Your task to perform on an android device: uninstall "Reddit" Image 0: 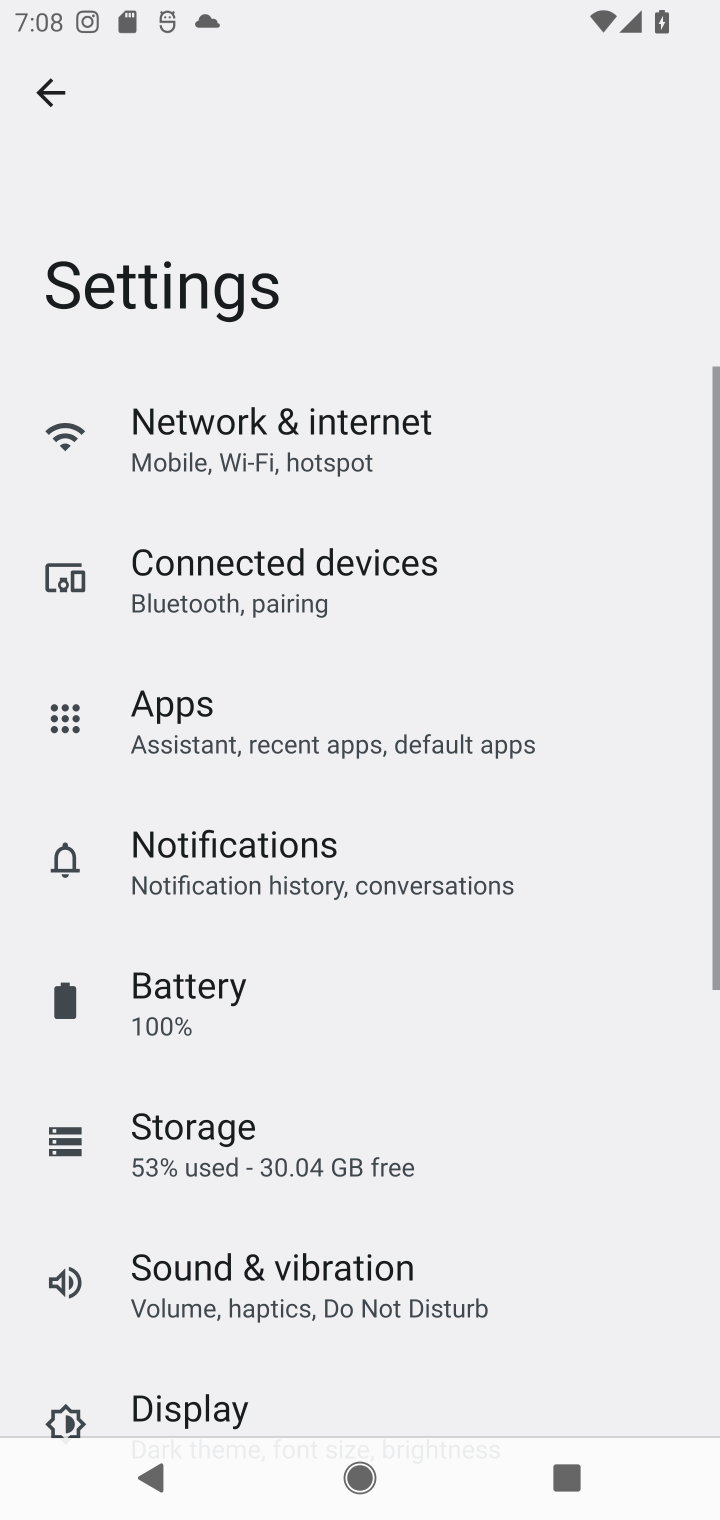
Step 0: press home button
Your task to perform on an android device: uninstall "Reddit" Image 1: 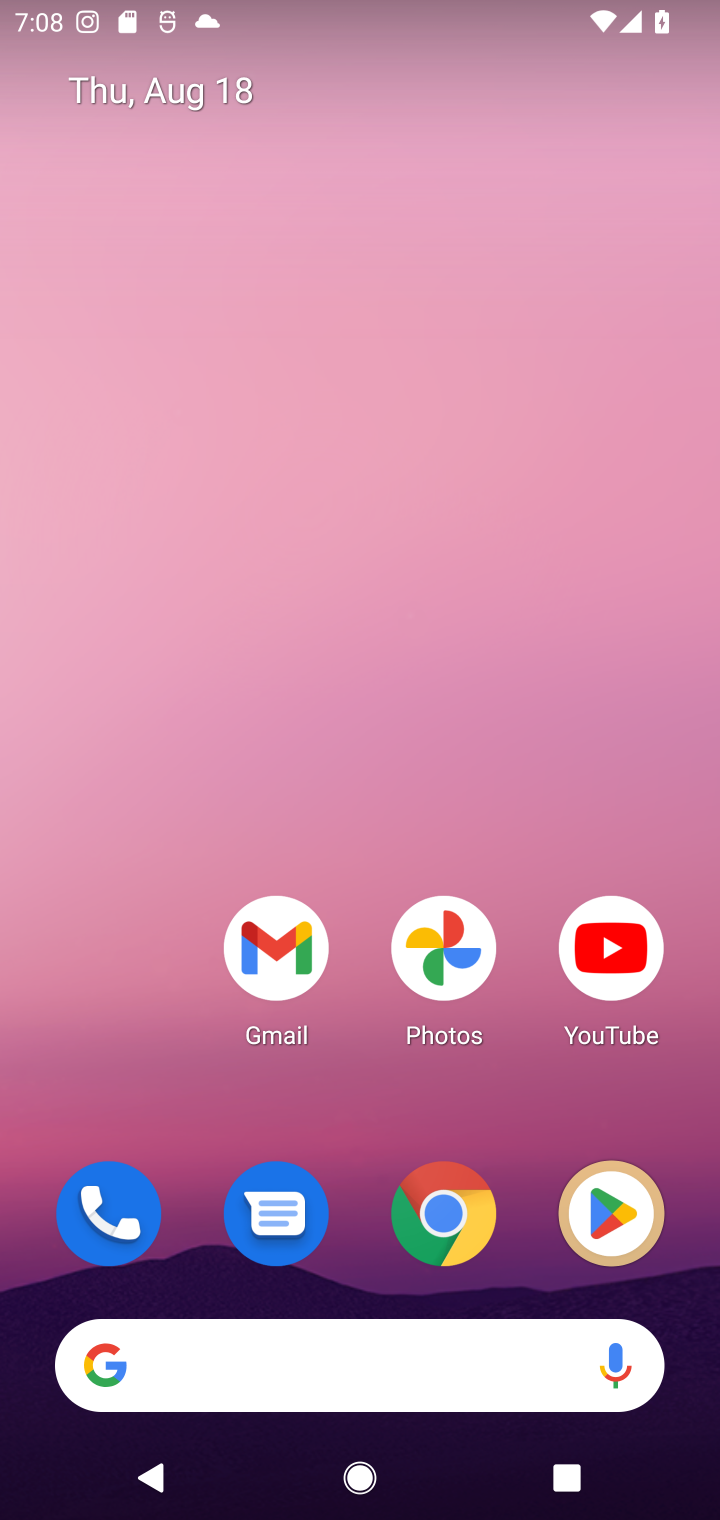
Step 1: click (608, 1204)
Your task to perform on an android device: uninstall "Reddit" Image 2: 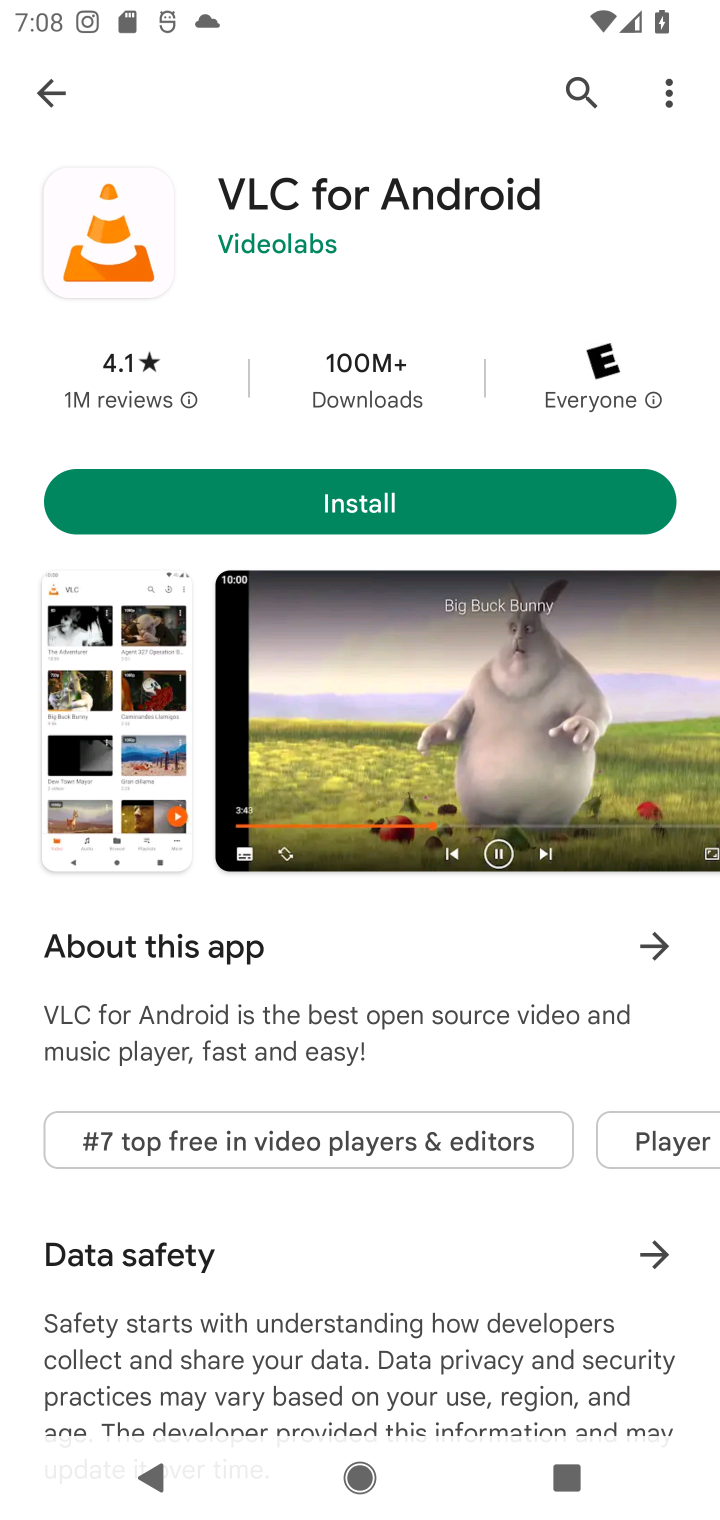
Step 2: click (40, 88)
Your task to perform on an android device: uninstall "Reddit" Image 3: 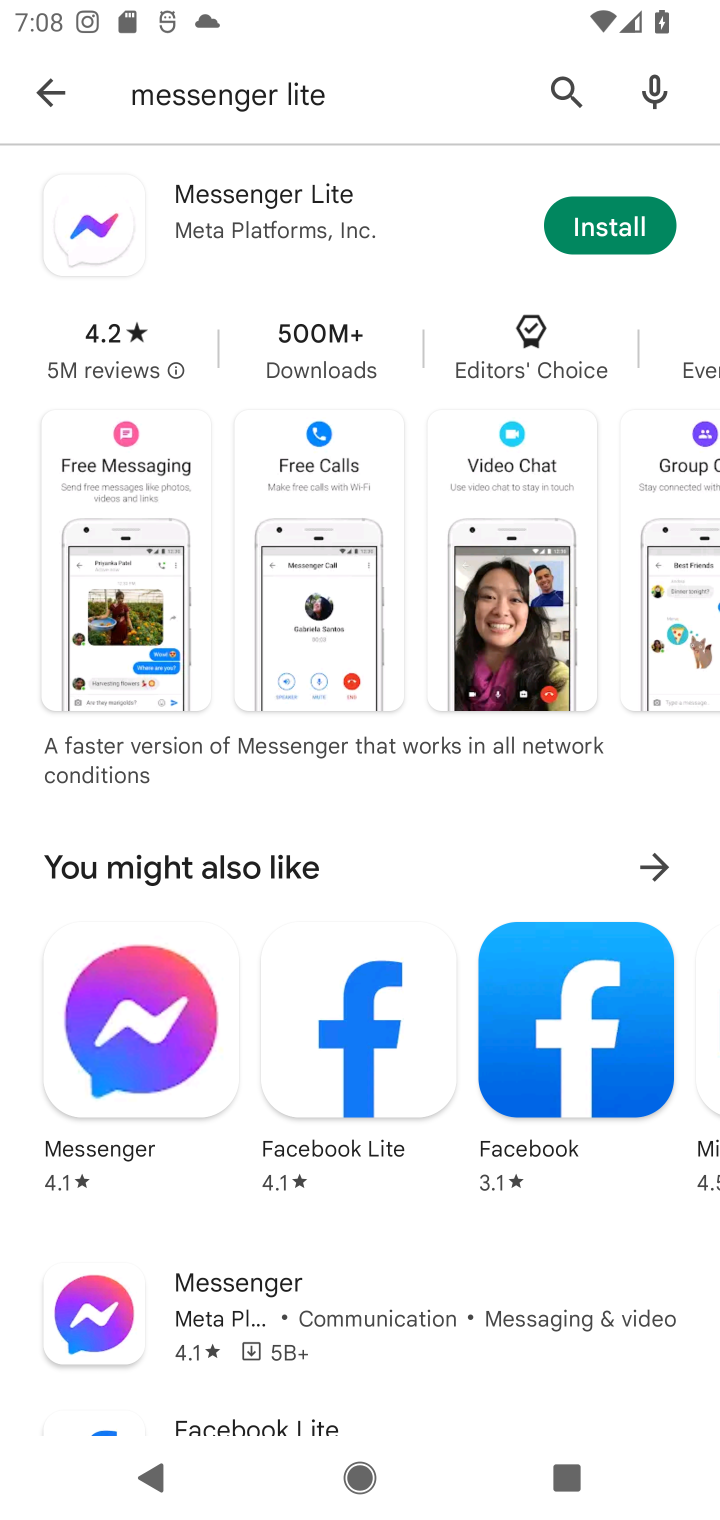
Step 3: click (554, 102)
Your task to perform on an android device: uninstall "Reddit" Image 4: 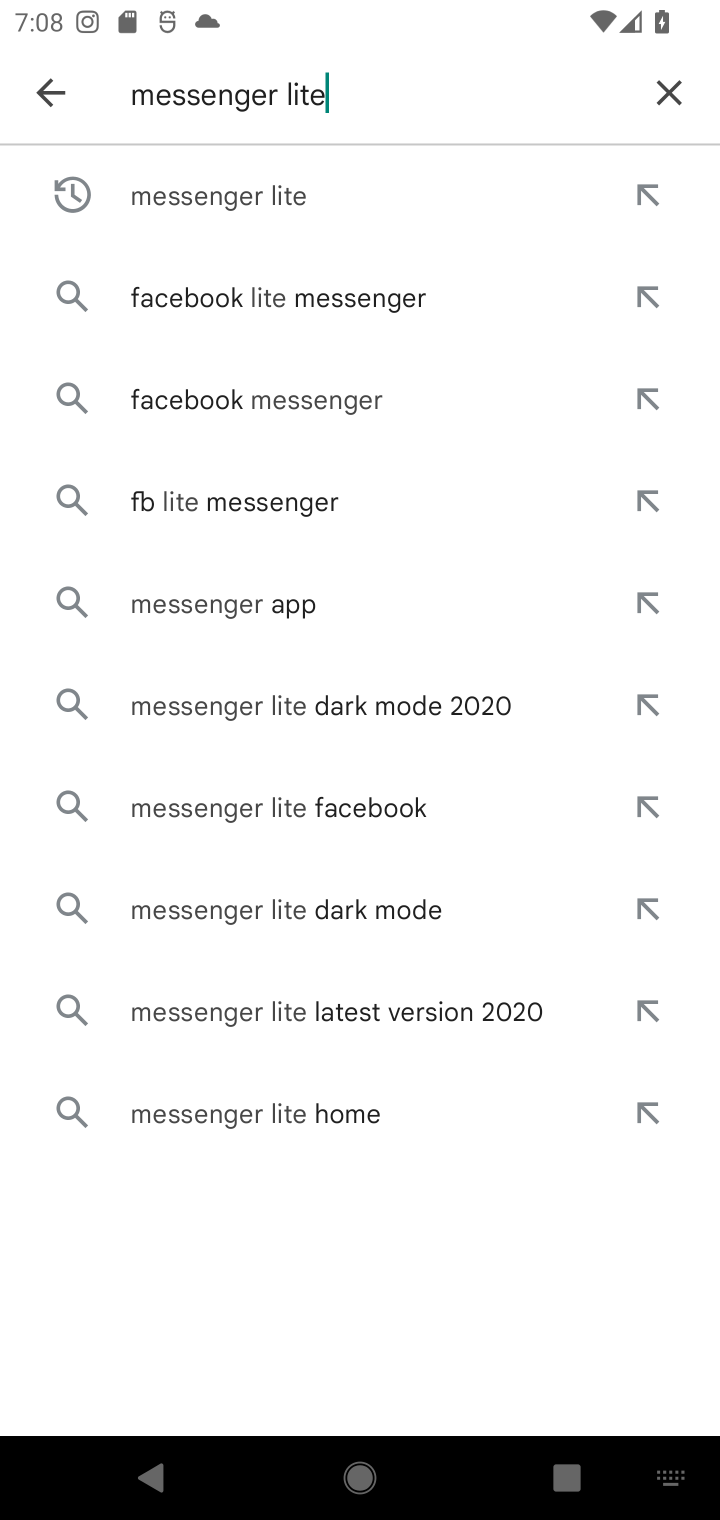
Step 4: click (661, 92)
Your task to perform on an android device: uninstall "Reddit" Image 5: 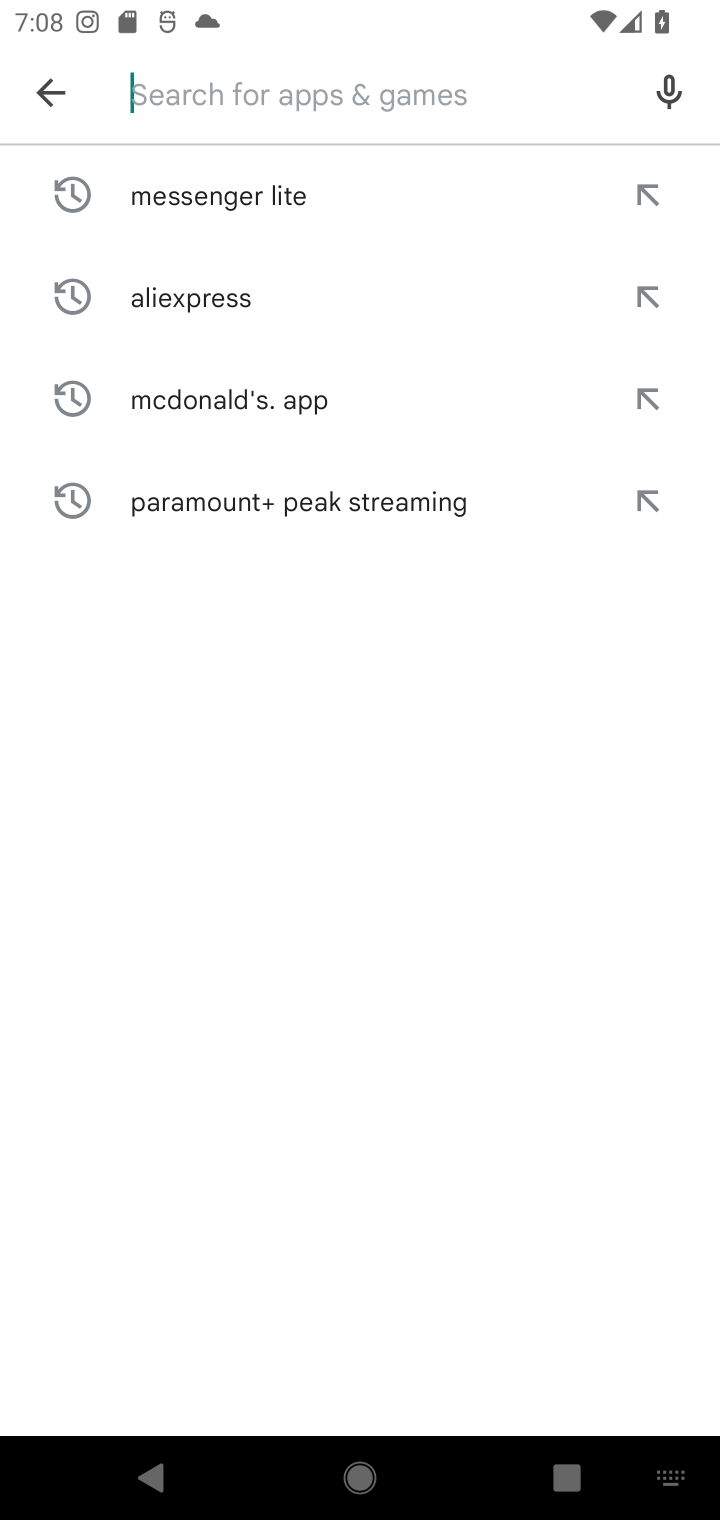
Step 5: type "Reddit"
Your task to perform on an android device: uninstall "Reddit" Image 6: 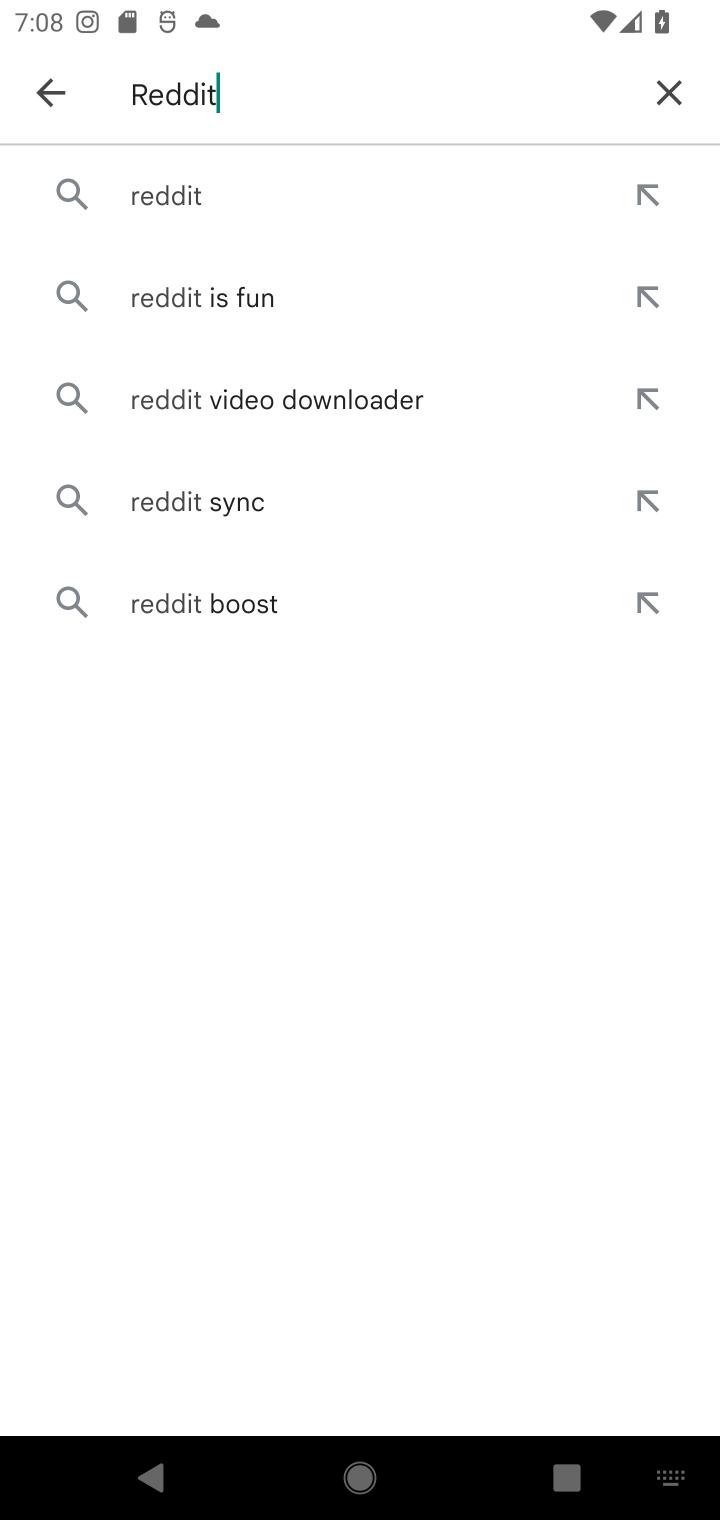
Step 6: click (198, 181)
Your task to perform on an android device: uninstall "Reddit" Image 7: 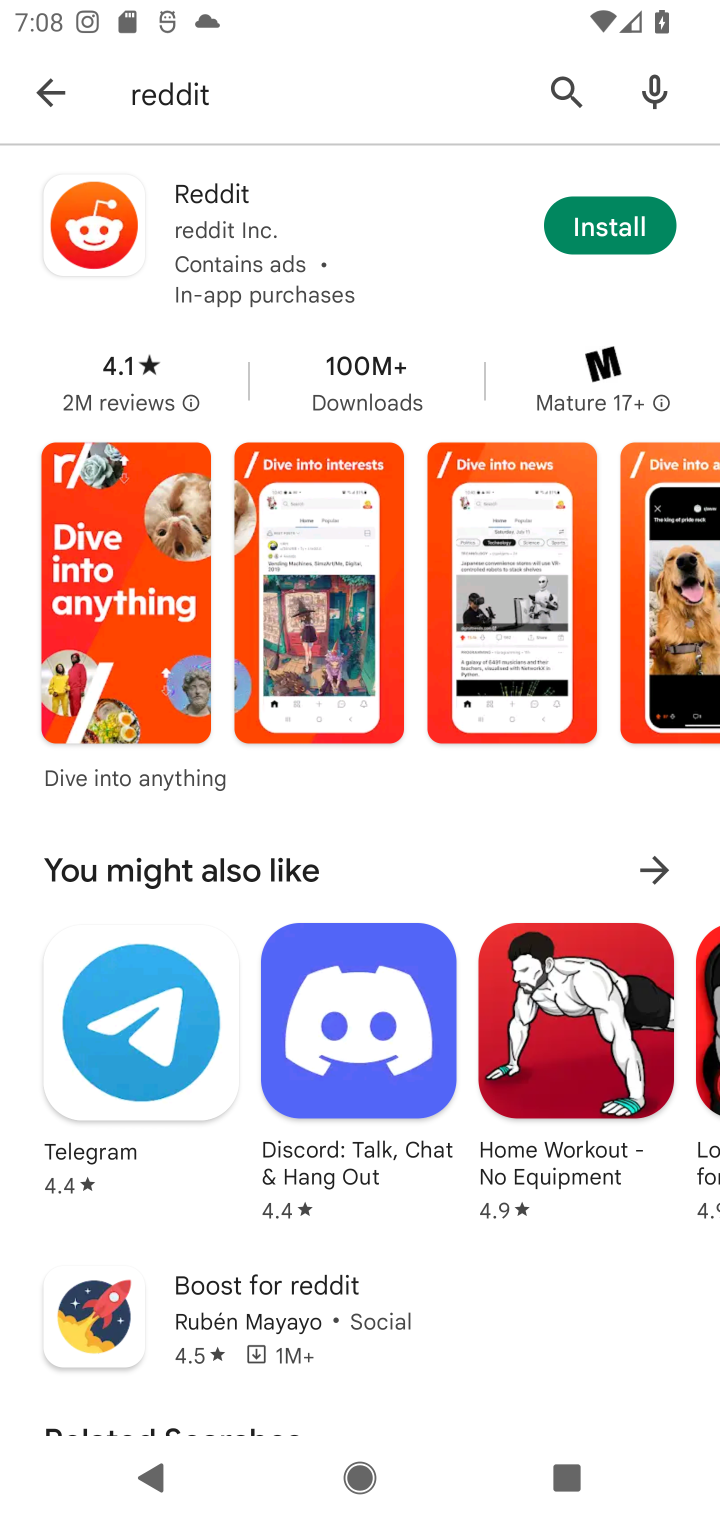
Step 7: task complete